Your task to perform on an android device: Show the shopping cart on target.com. Search for "alienware area 51" on target.com, select the first entry, add it to the cart, then select checkout. Image 0: 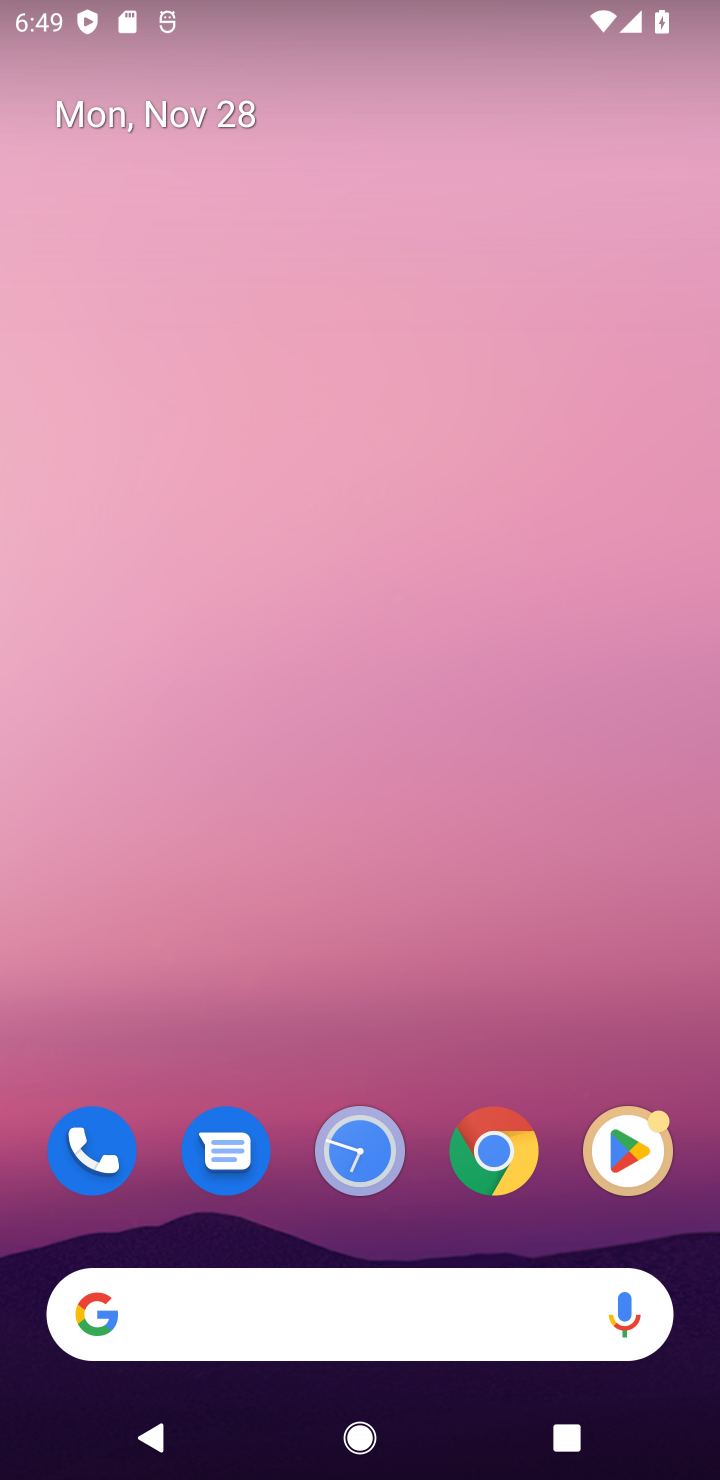
Step 0: click (231, 1339)
Your task to perform on an android device: Show the shopping cart on target.com. Search for "alienware area 51" on target.com, select the first entry, add it to the cart, then select checkout. Image 1: 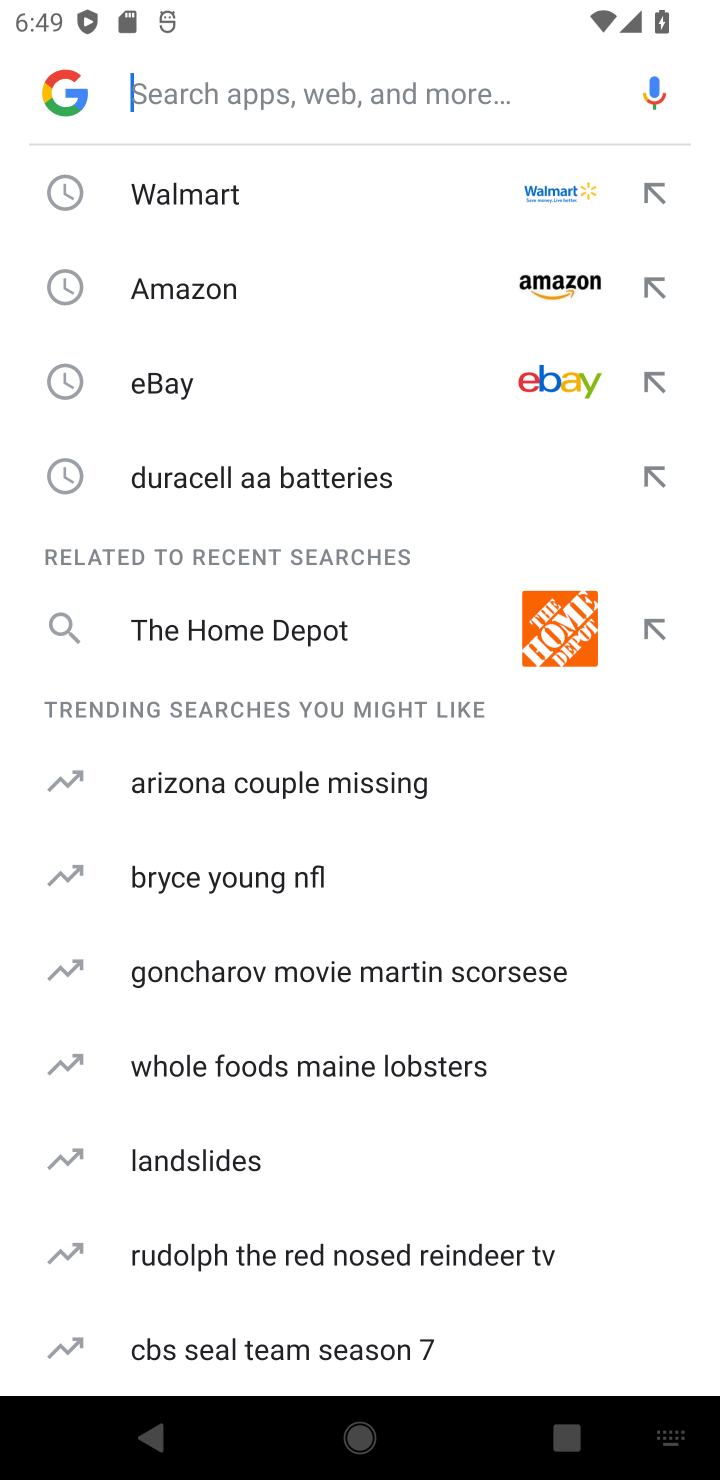
Step 1: type "target"
Your task to perform on an android device: Show the shopping cart on target.com. Search for "alienware area 51" on target.com, select the first entry, add it to the cart, then select checkout. Image 2: 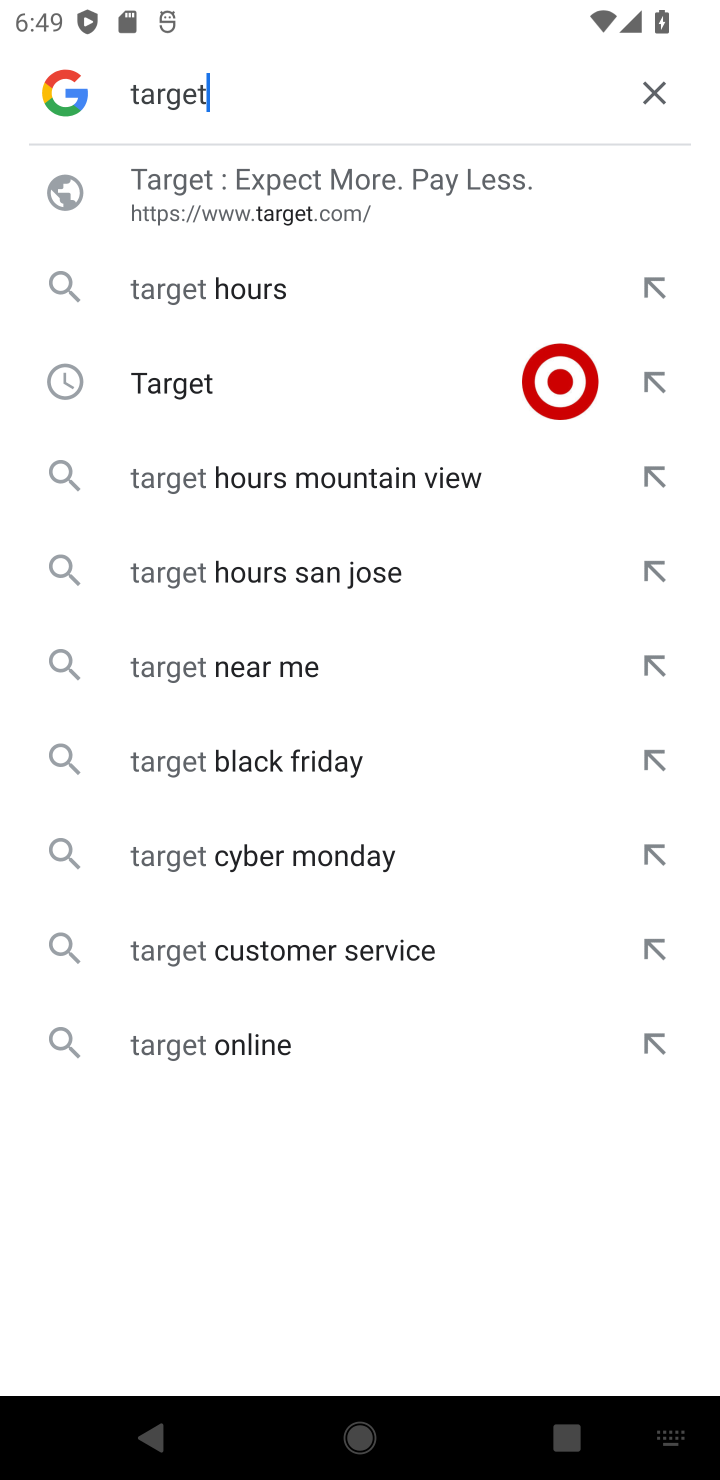
Step 2: click (314, 372)
Your task to perform on an android device: Show the shopping cart on target.com. Search for "alienware area 51" on target.com, select the first entry, add it to the cart, then select checkout. Image 3: 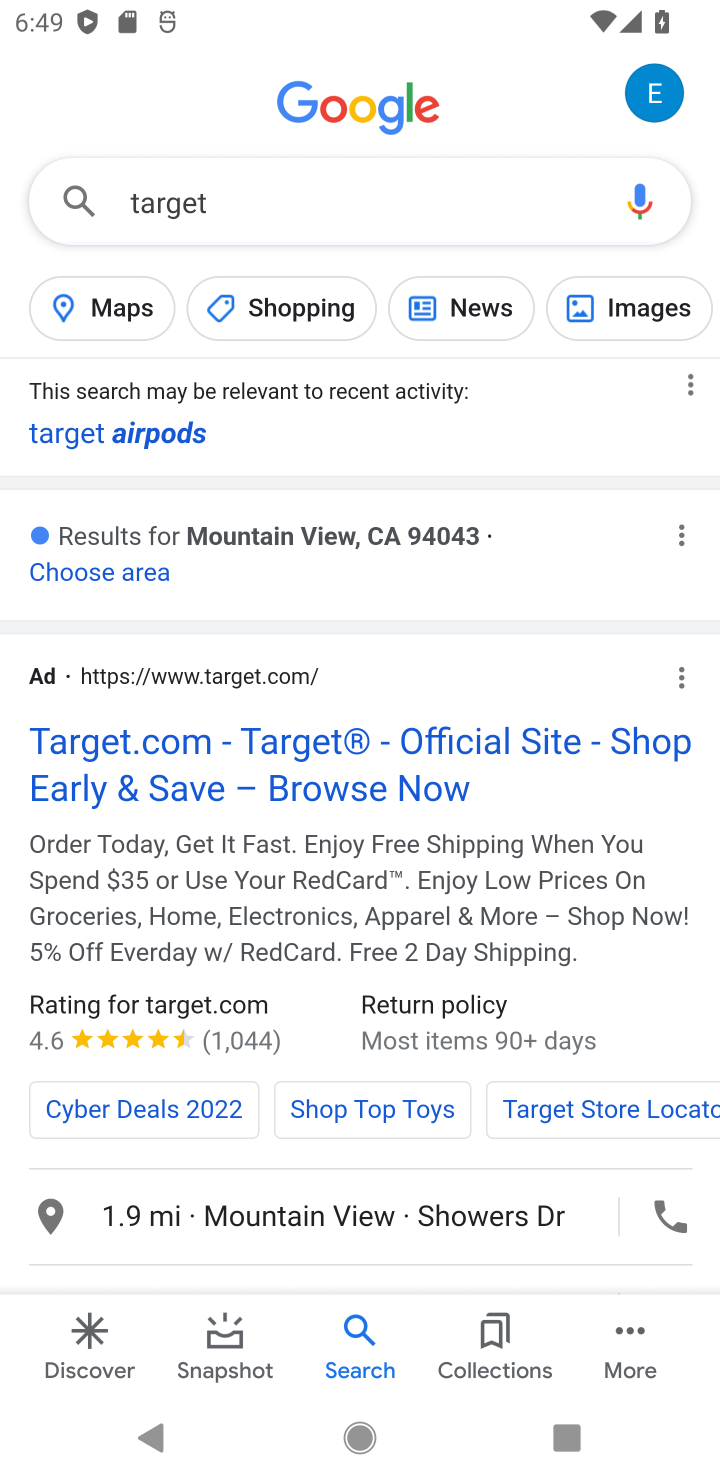
Step 3: click (189, 747)
Your task to perform on an android device: Show the shopping cart on target.com. Search for "alienware area 51" on target.com, select the first entry, add it to the cart, then select checkout. Image 4: 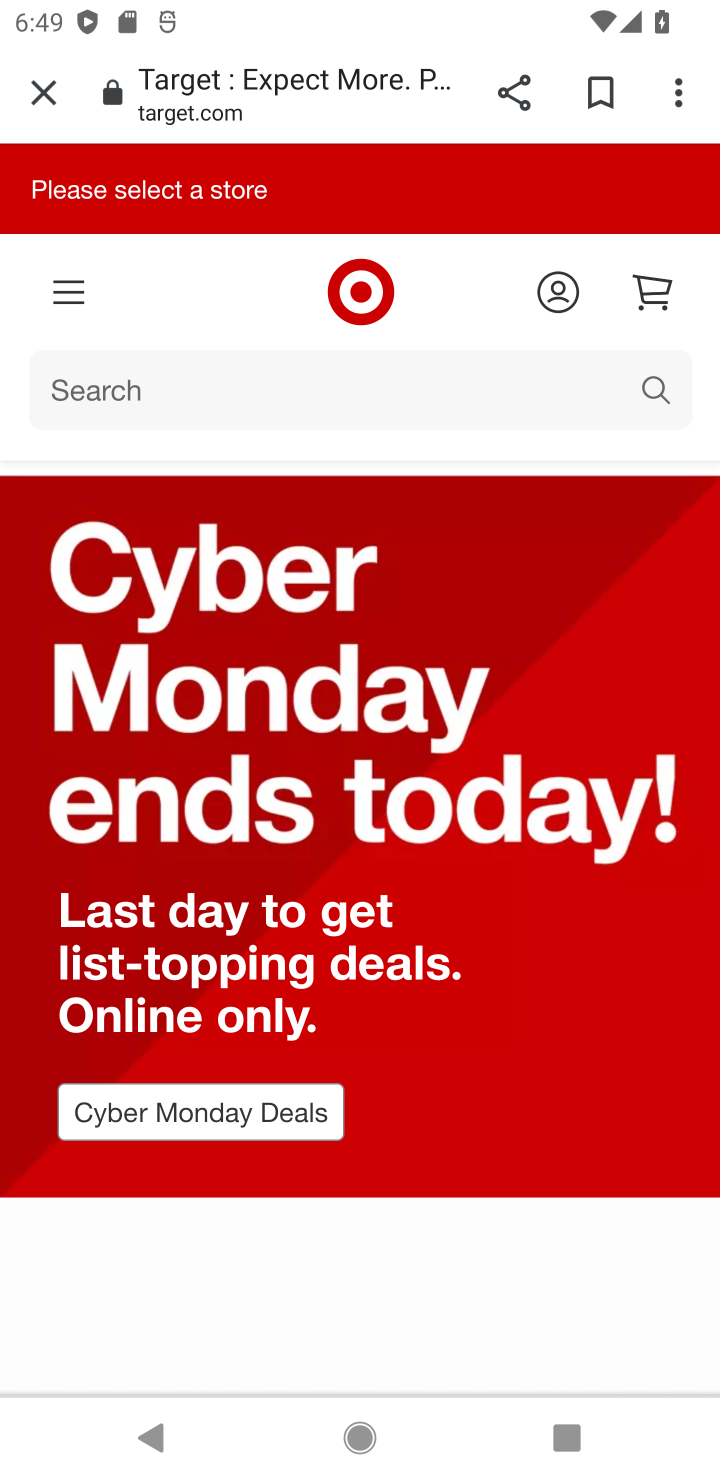
Step 4: click (350, 371)
Your task to perform on an android device: Show the shopping cart on target.com. Search for "alienware area 51" on target.com, select the first entry, add it to the cart, then select checkout. Image 5: 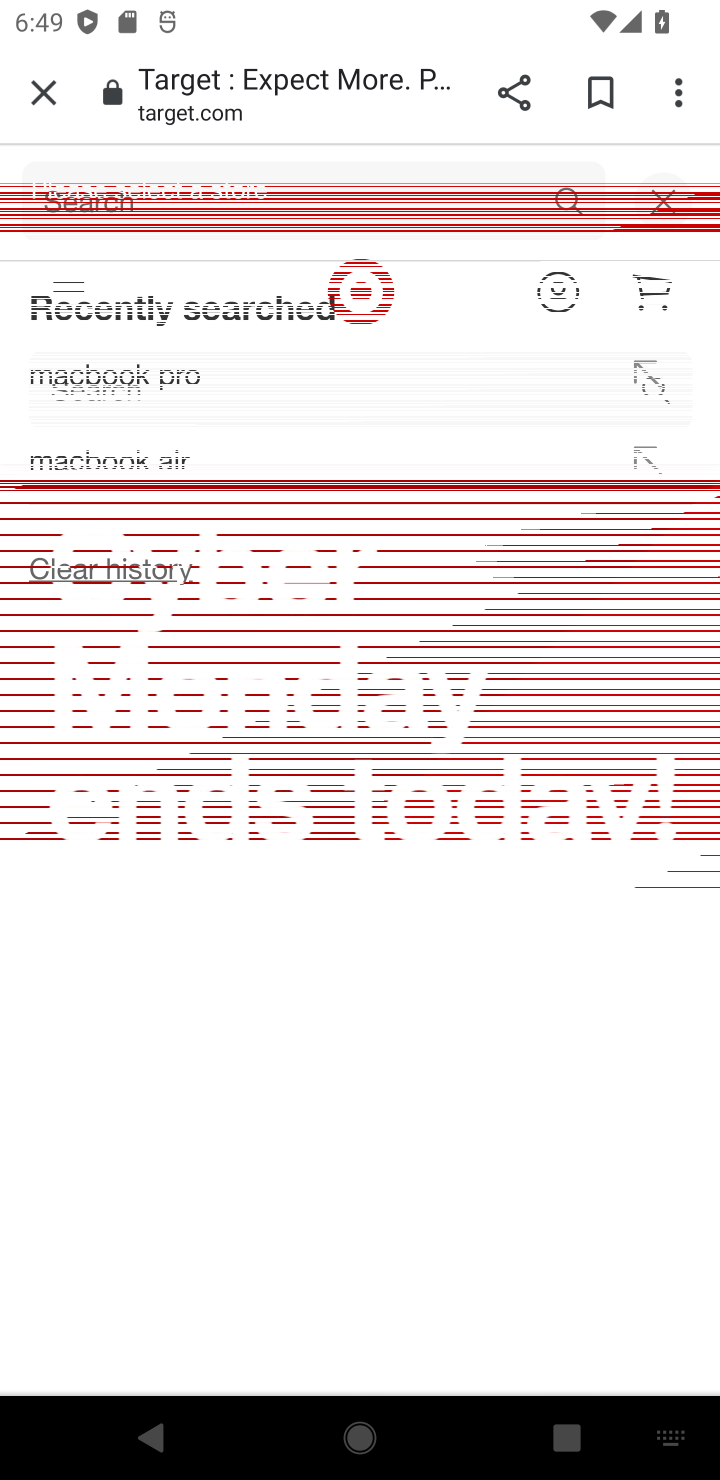
Step 5: type "alienware area 51"
Your task to perform on an android device: Show the shopping cart on target.com. Search for "alienware area 51" on target.com, select the first entry, add it to the cart, then select checkout. Image 6: 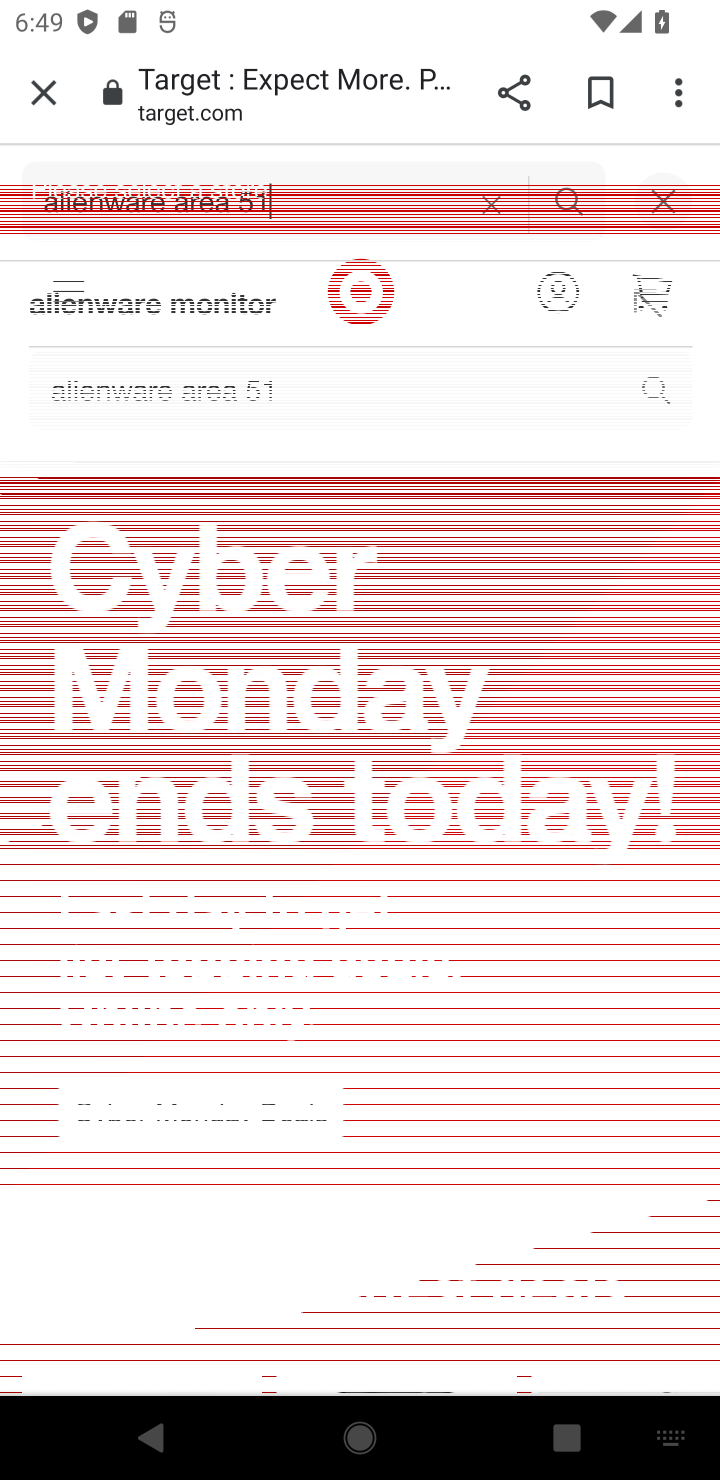
Step 6: click (572, 185)
Your task to perform on an android device: Show the shopping cart on target.com. Search for "alienware area 51" on target.com, select the first entry, add it to the cart, then select checkout. Image 7: 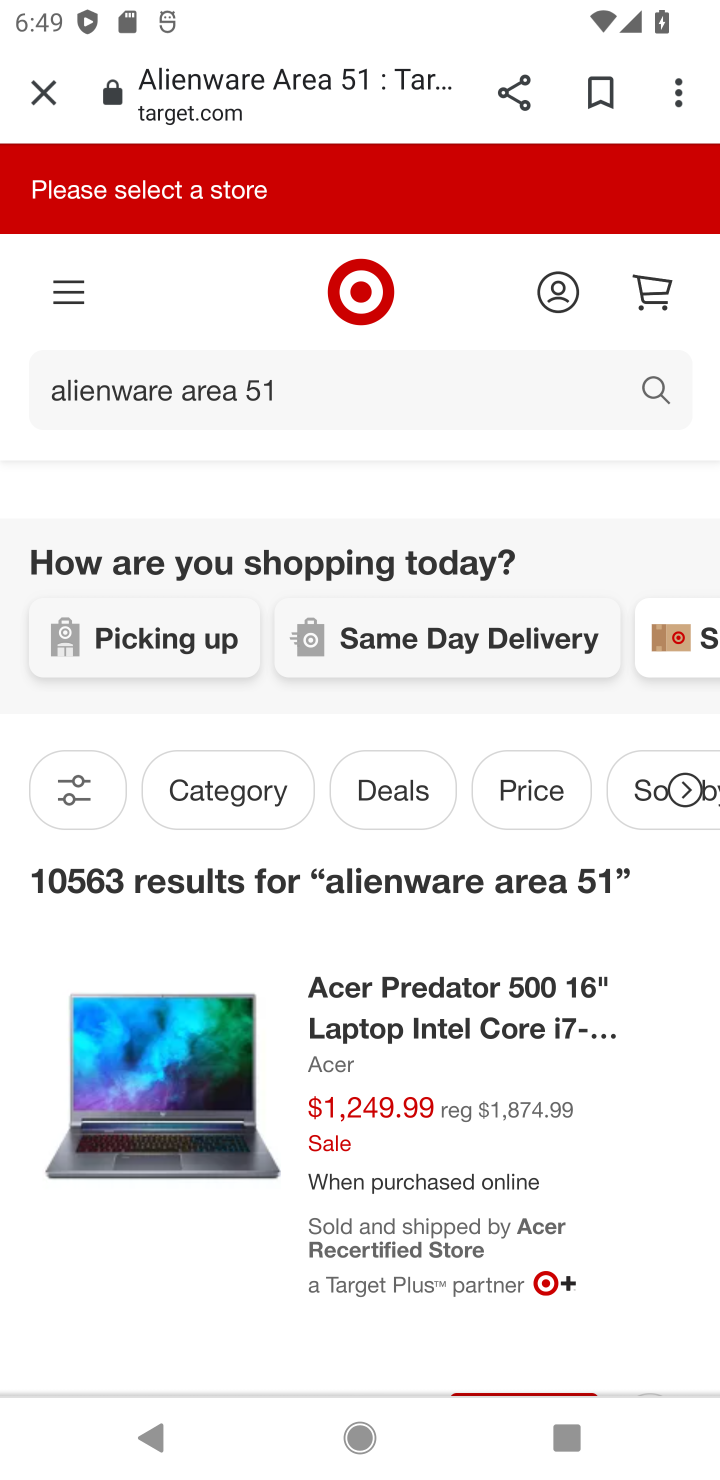
Step 7: click (325, 1058)
Your task to perform on an android device: Show the shopping cart on target.com. Search for "alienware area 51" on target.com, select the first entry, add it to the cart, then select checkout. Image 8: 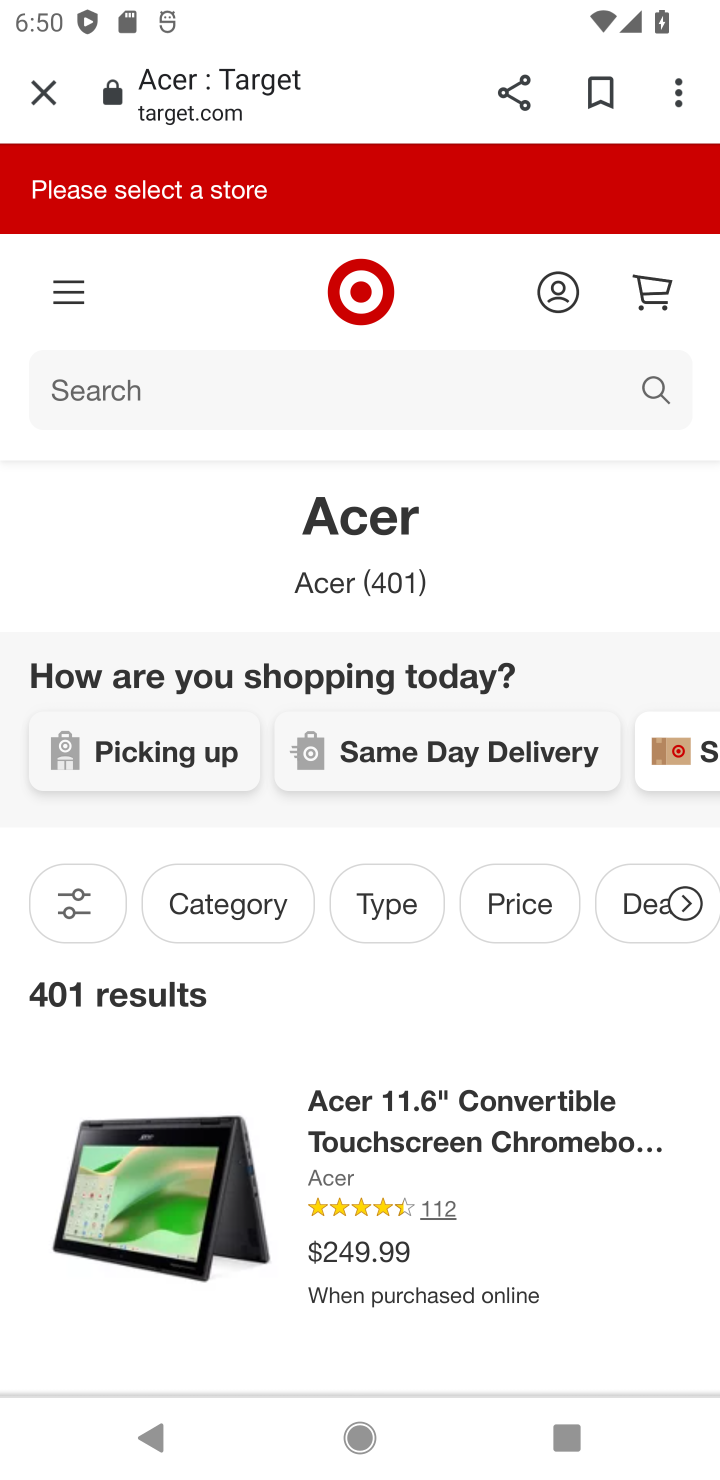
Step 8: drag from (360, 1008) to (338, 623)
Your task to perform on an android device: Show the shopping cart on target.com. Search for "alienware area 51" on target.com, select the first entry, add it to the cart, then select checkout. Image 9: 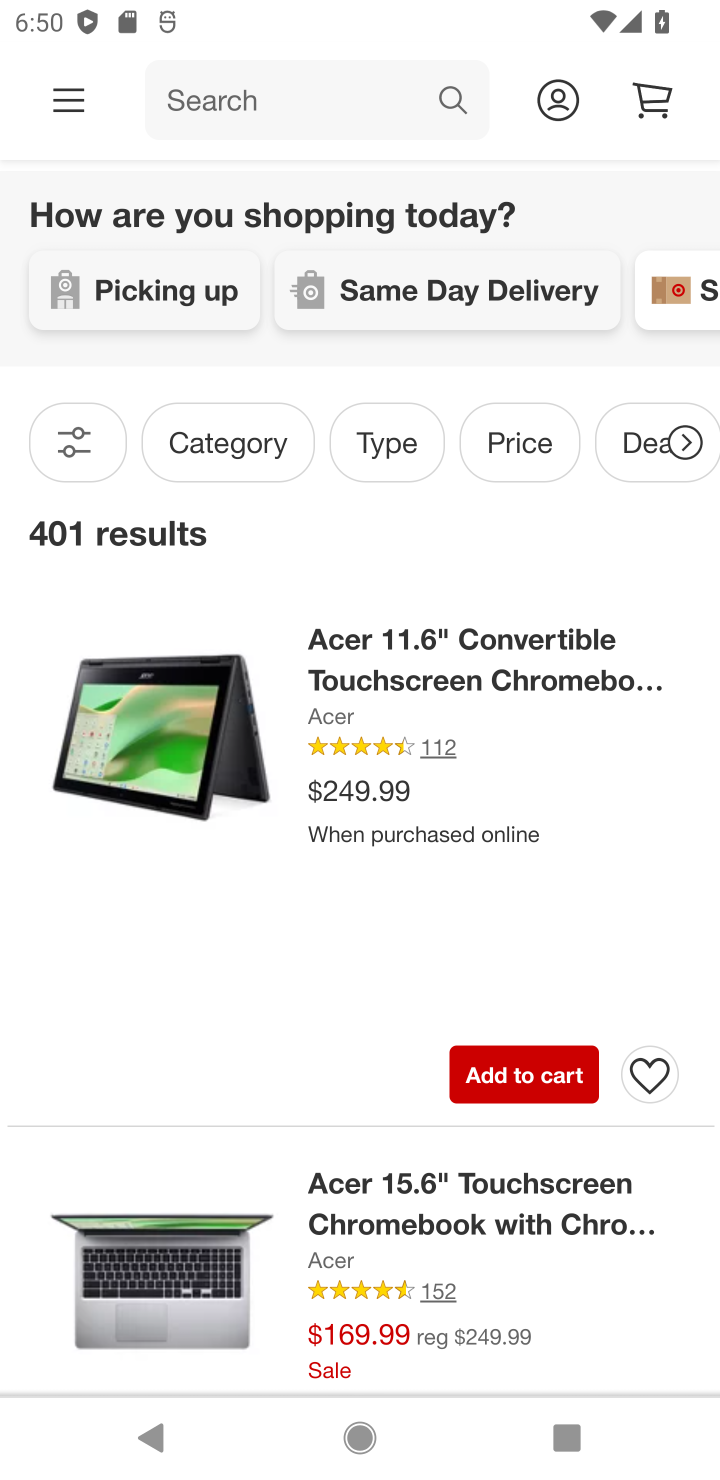
Step 9: click (496, 1063)
Your task to perform on an android device: Show the shopping cart on target.com. Search for "alienware area 51" on target.com, select the first entry, add it to the cart, then select checkout. Image 10: 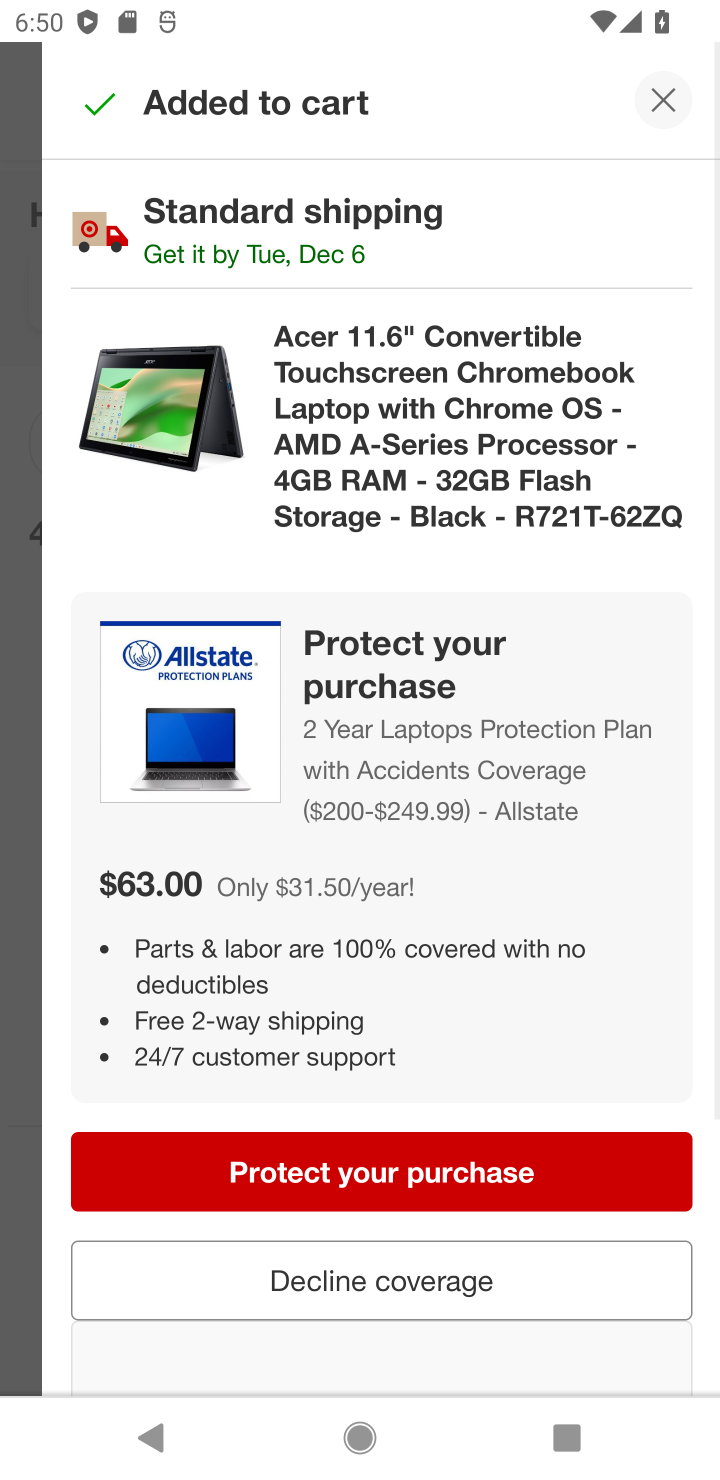
Step 10: task complete